Your task to perform on an android device: search for starred emails in the gmail app Image 0: 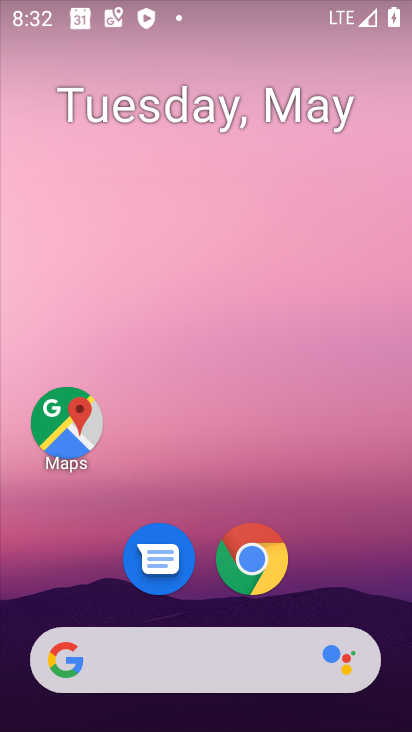
Step 0: drag from (155, 582) to (262, 3)
Your task to perform on an android device: search for starred emails in the gmail app Image 1: 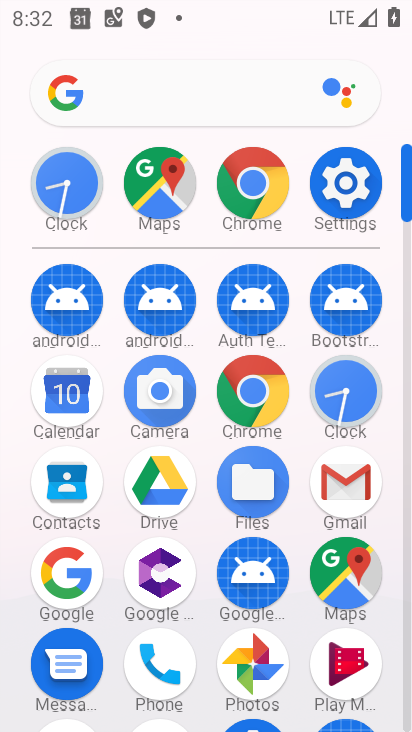
Step 1: click (340, 459)
Your task to perform on an android device: search for starred emails in the gmail app Image 2: 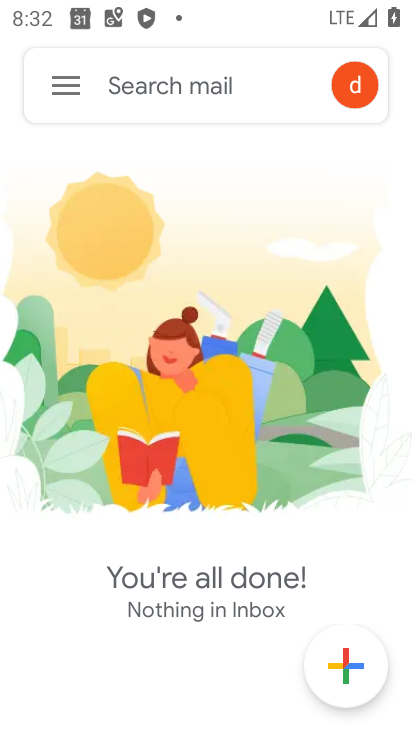
Step 2: click (69, 82)
Your task to perform on an android device: search for starred emails in the gmail app Image 3: 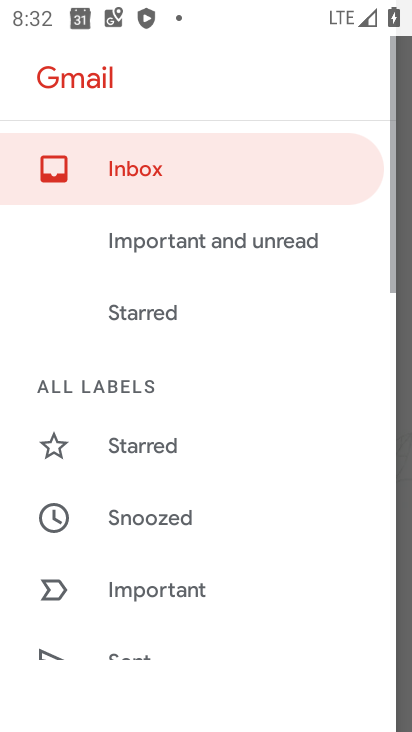
Step 3: drag from (190, 598) to (221, 379)
Your task to perform on an android device: search for starred emails in the gmail app Image 4: 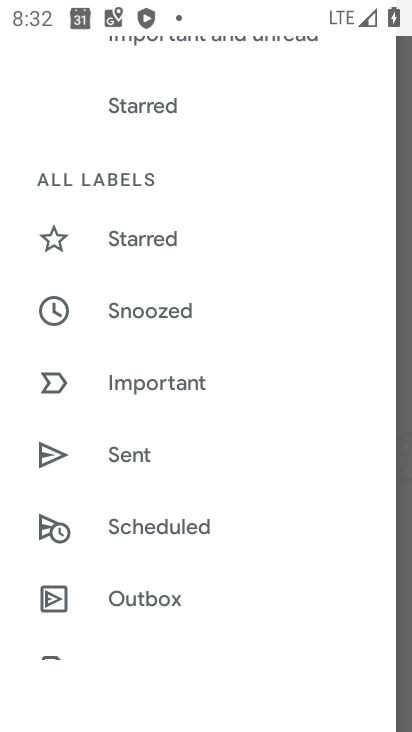
Step 4: click (129, 226)
Your task to perform on an android device: search for starred emails in the gmail app Image 5: 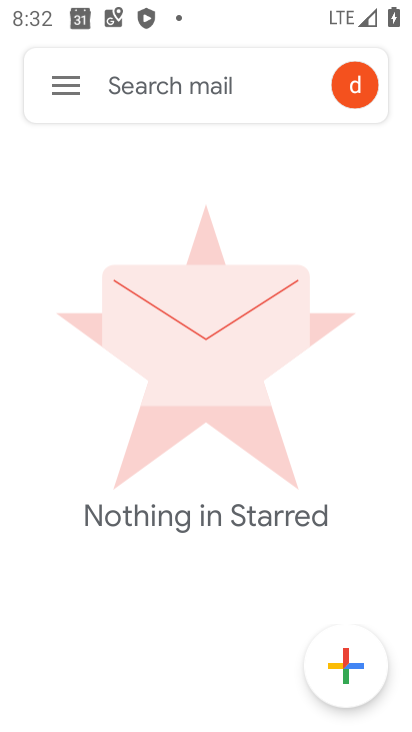
Step 5: task complete